Your task to perform on an android device: uninstall "Spotify" Image 0: 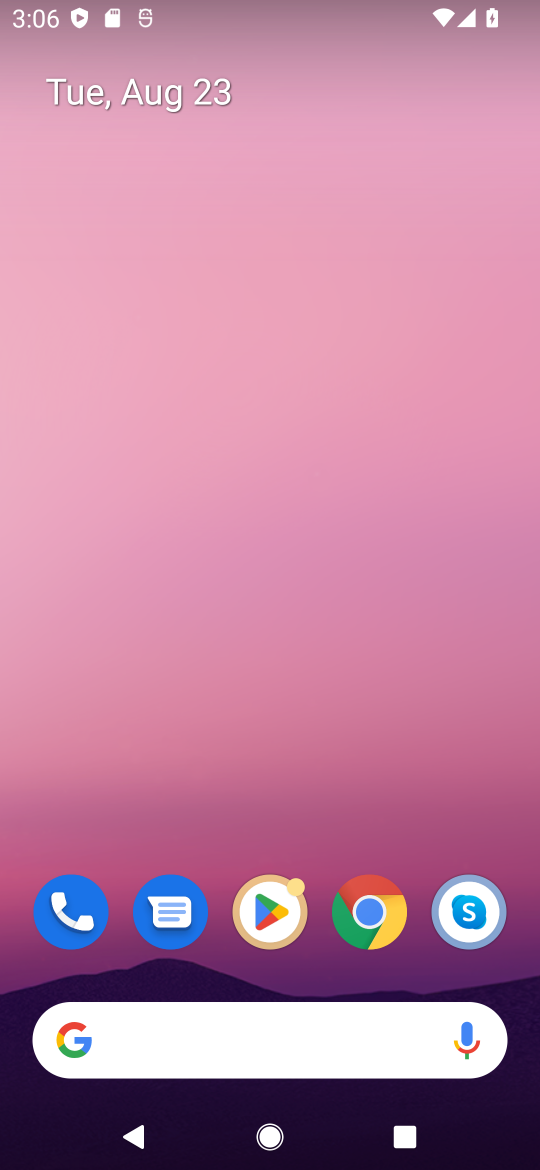
Step 0: drag from (183, 1042) to (167, 184)
Your task to perform on an android device: uninstall "Spotify" Image 1: 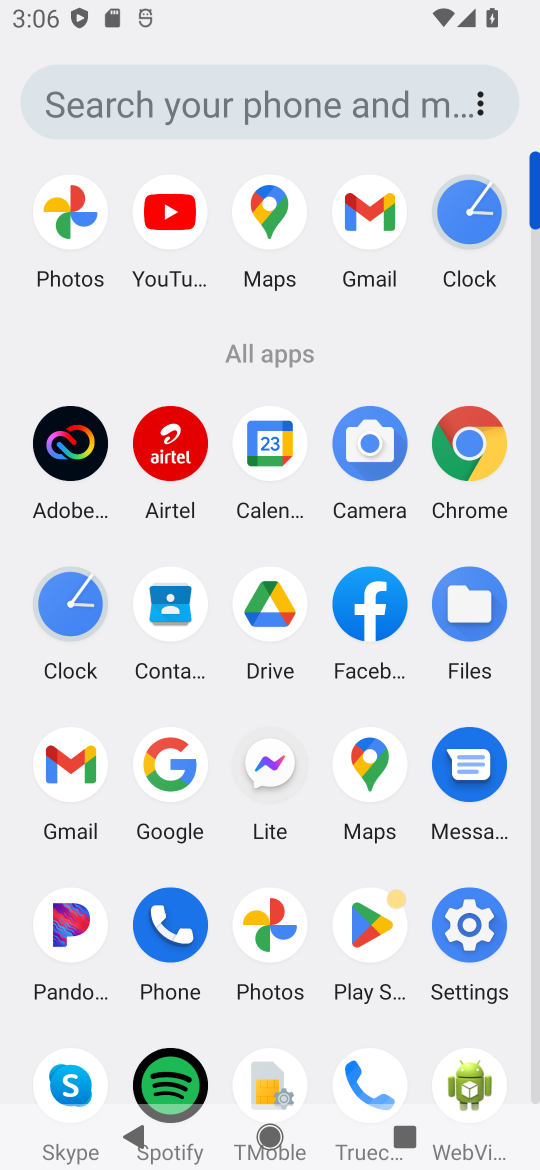
Step 1: click (378, 923)
Your task to perform on an android device: uninstall "Spotify" Image 2: 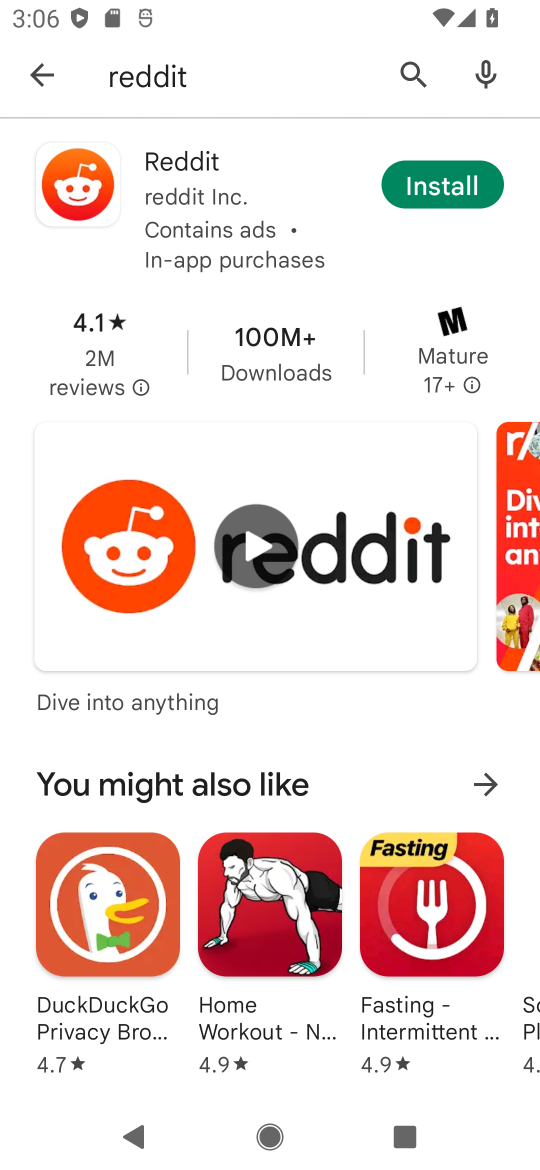
Step 2: press back button
Your task to perform on an android device: uninstall "Spotify" Image 3: 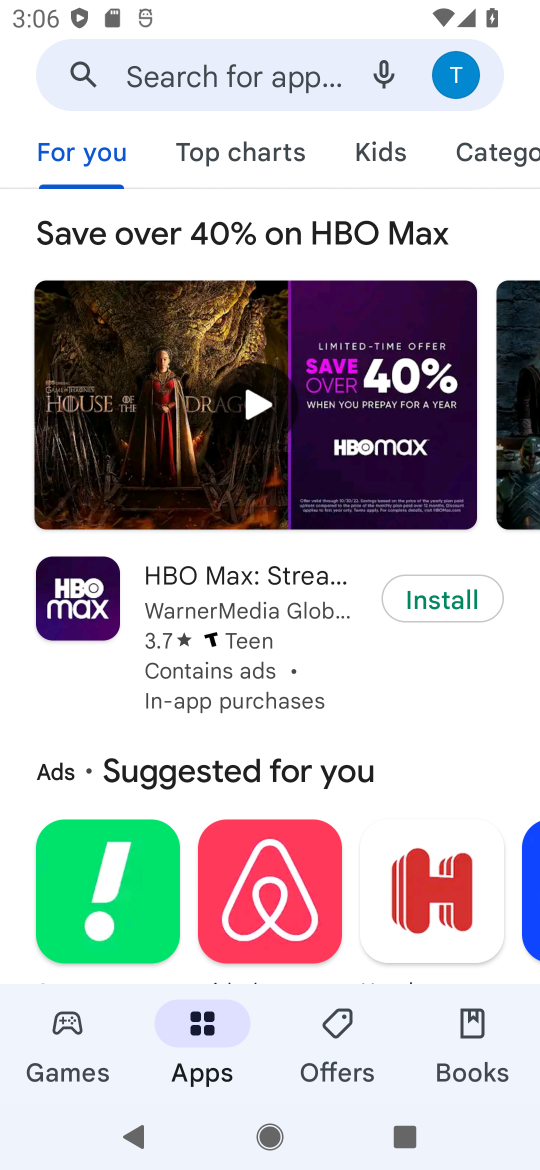
Step 3: click (241, 76)
Your task to perform on an android device: uninstall "Spotify" Image 4: 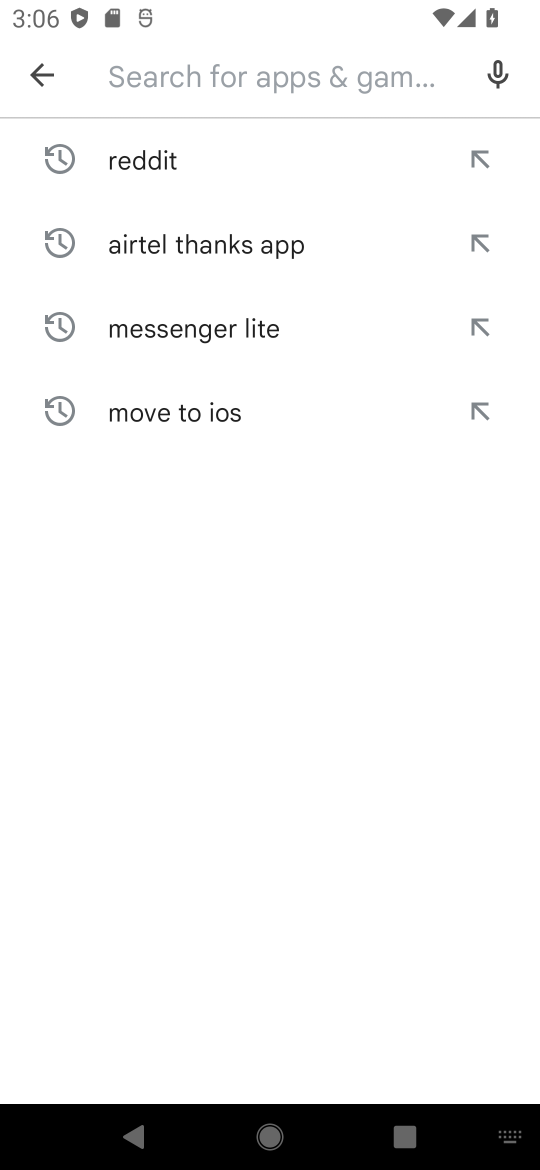
Step 4: type "spotify"
Your task to perform on an android device: uninstall "Spotify" Image 5: 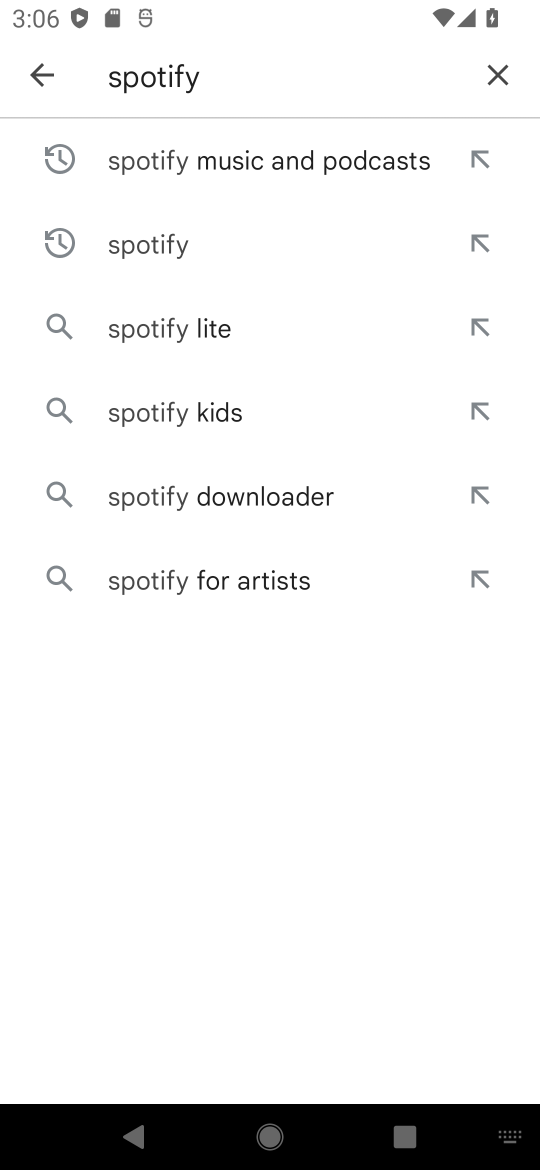
Step 5: click (169, 236)
Your task to perform on an android device: uninstall "Spotify" Image 6: 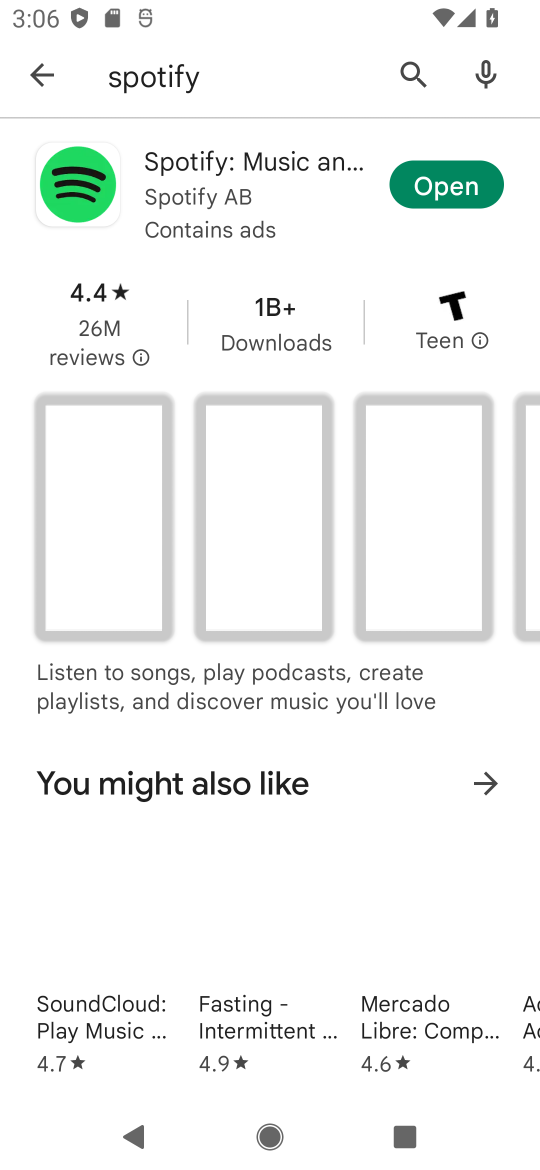
Step 6: click (198, 161)
Your task to perform on an android device: uninstall "Spotify" Image 7: 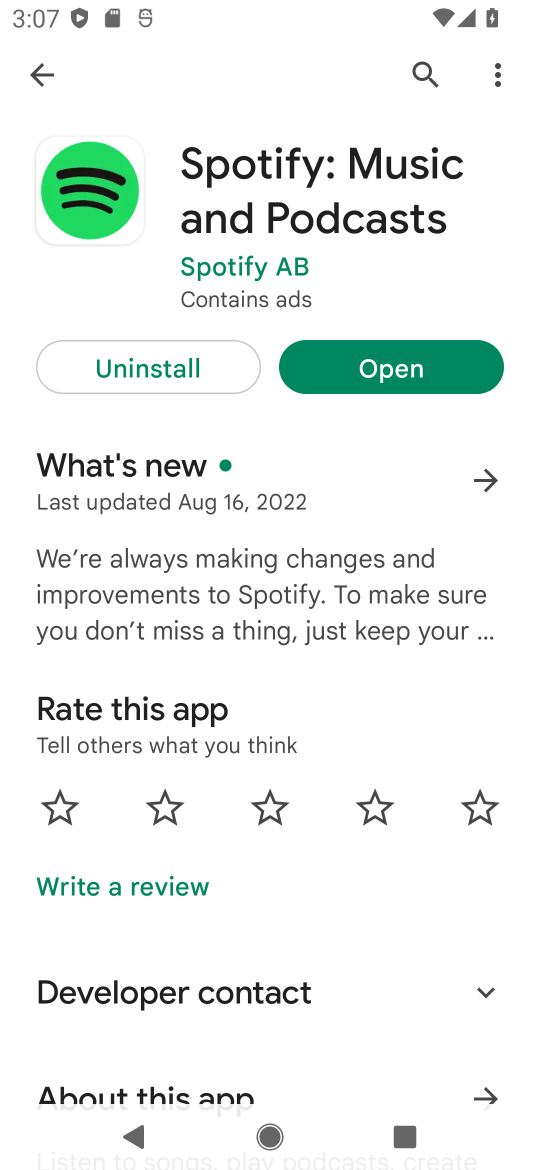
Step 7: click (134, 363)
Your task to perform on an android device: uninstall "Spotify" Image 8: 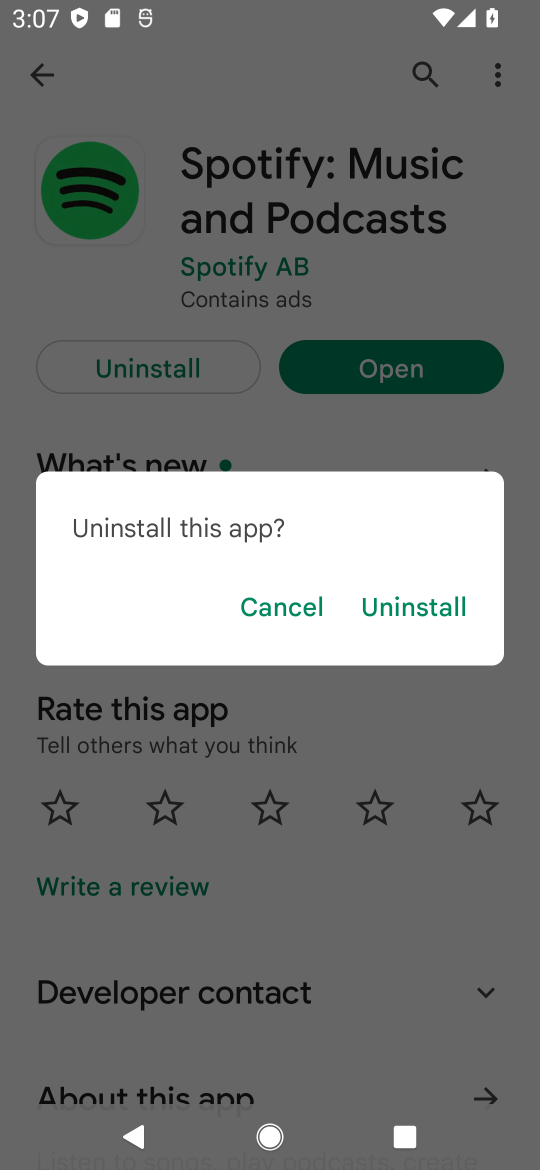
Step 8: click (425, 609)
Your task to perform on an android device: uninstall "Spotify" Image 9: 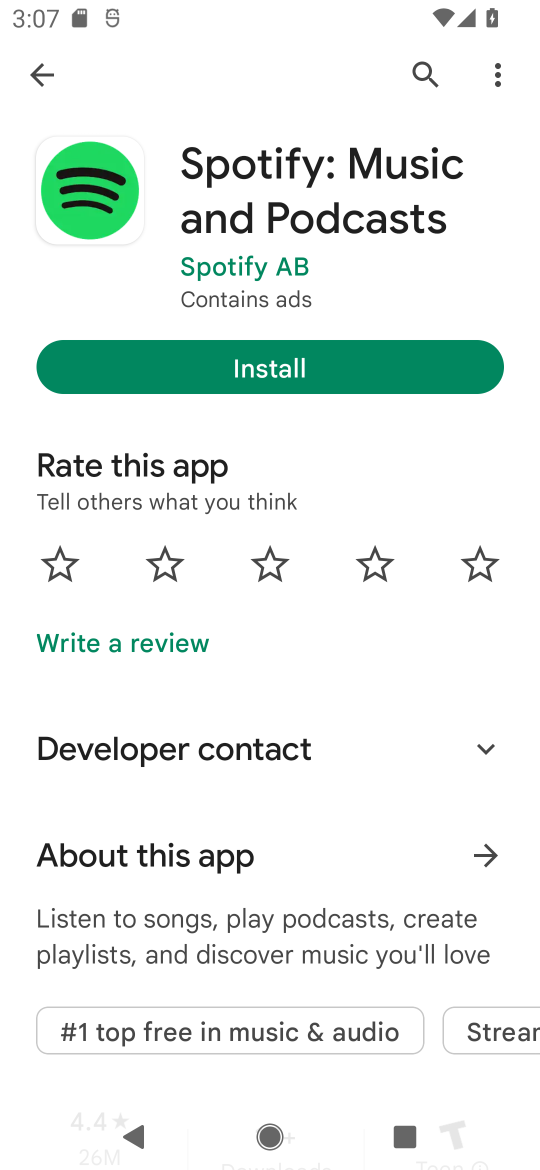
Step 9: task complete